Your task to perform on an android device: Open Yahoo.com Image 0: 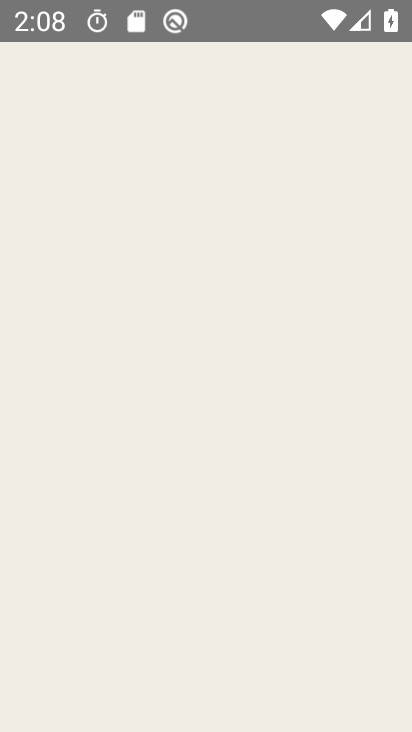
Step 0: click (346, 128)
Your task to perform on an android device: Open Yahoo.com Image 1: 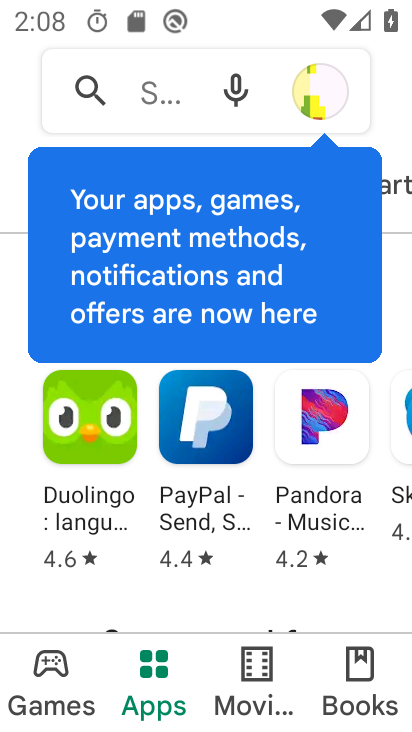
Step 1: press back button
Your task to perform on an android device: Open Yahoo.com Image 2: 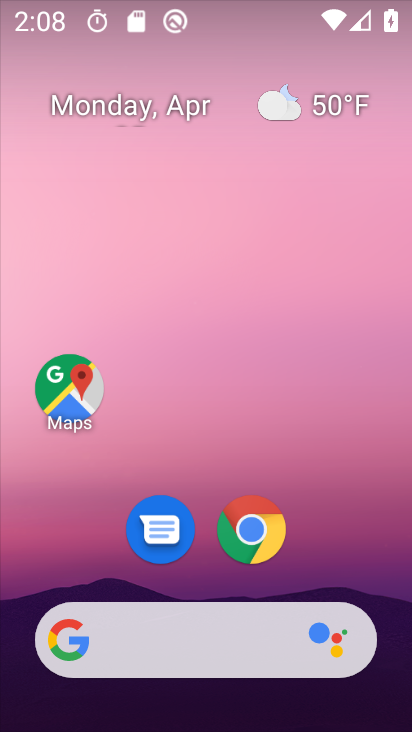
Step 2: click (256, 530)
Your task to perform on an android device: Open Yahoo.com Image 3: 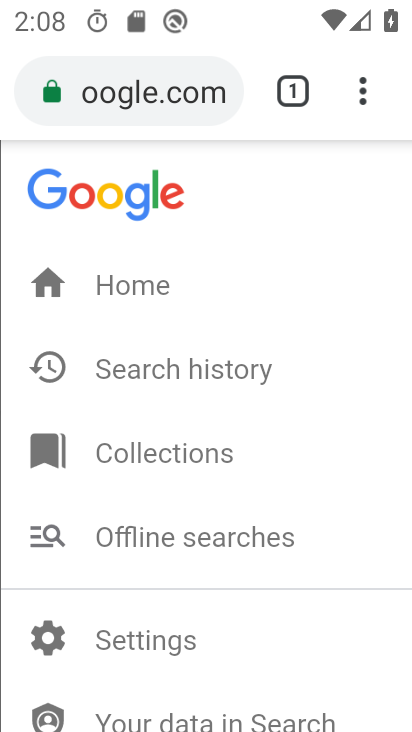
Step 3: click (224, 92)
Your task to perform on an android device: Open Yahoo.com Image 4: 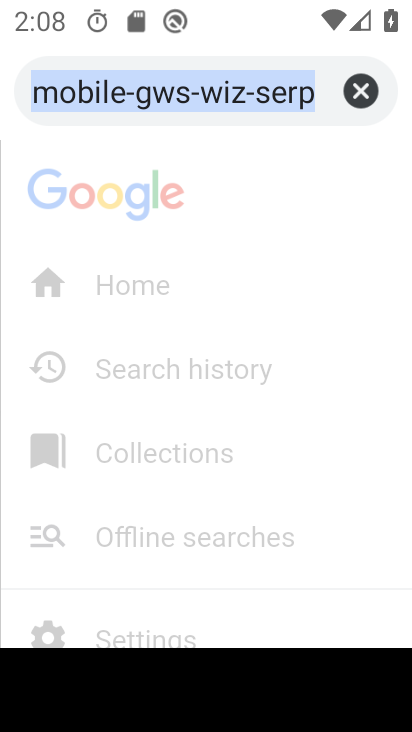
Step 4: click (353, 91)
Your task to perform on an android device: Open Yahoo.com Image 5: 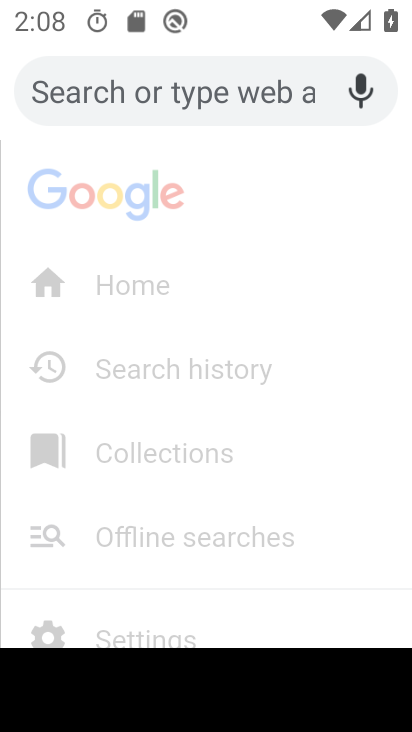
Step 5: type "Yahoo.com"
Your task to perform on an android device: Open Yahoo.com Image 6: 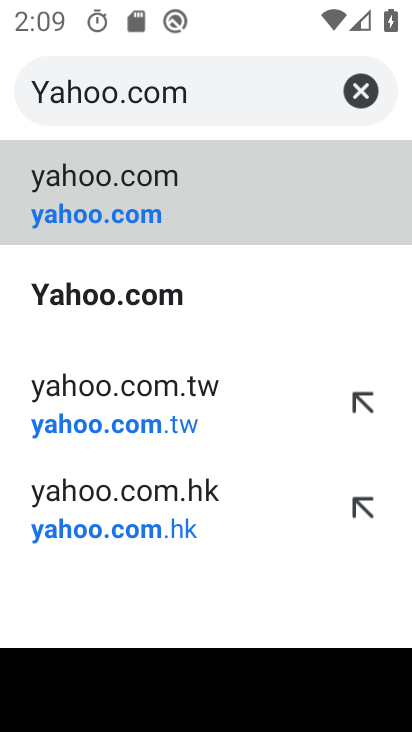
Step 6: click (79, 200)
Your task to perform on an android device: Open Yahoo.com Image 7: 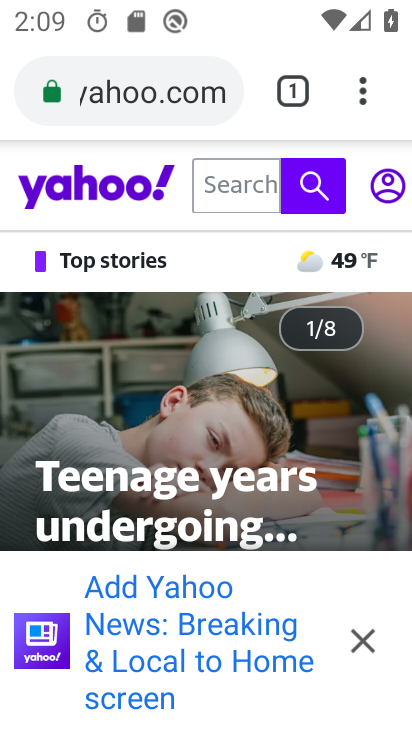
Step 7: task complete